Your task to perform on an android device: refresh tabs in the chrome app Image 0: 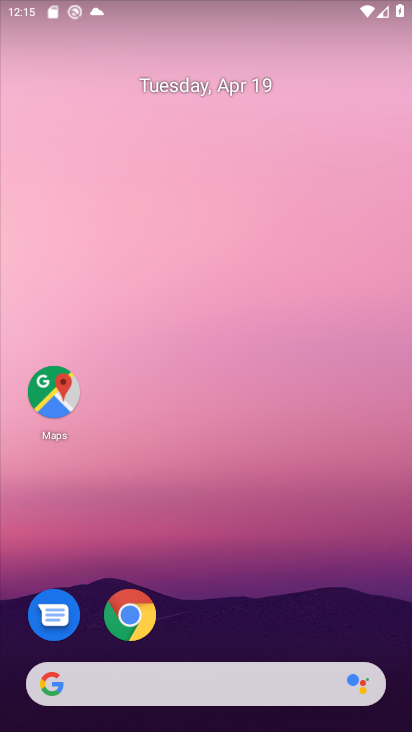
Step 0: click (129, 624)
Your task to perform on an android device: refresh tabs in the chrome app Image 1: 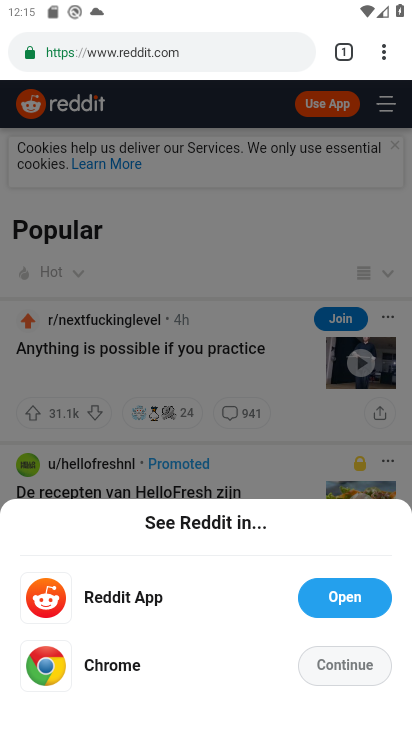
Step 1: click (381, 52)
Your task to perform on an android device: refresh tabs in the chrome app Image 2: 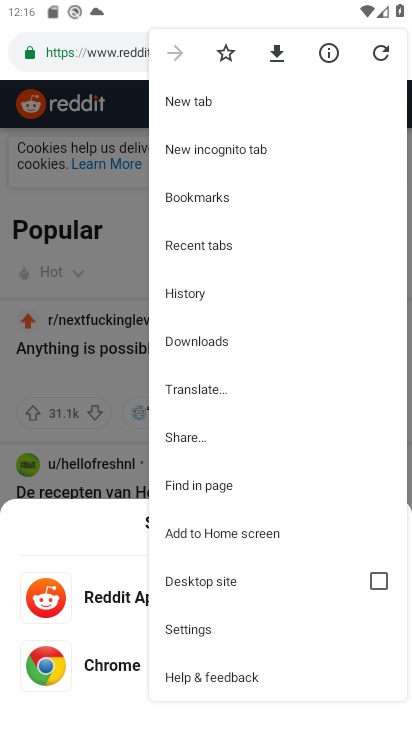
Step 2: click (381, 52)
Your task to perform on an android device: refresh tabs in the chrome app Image 3: 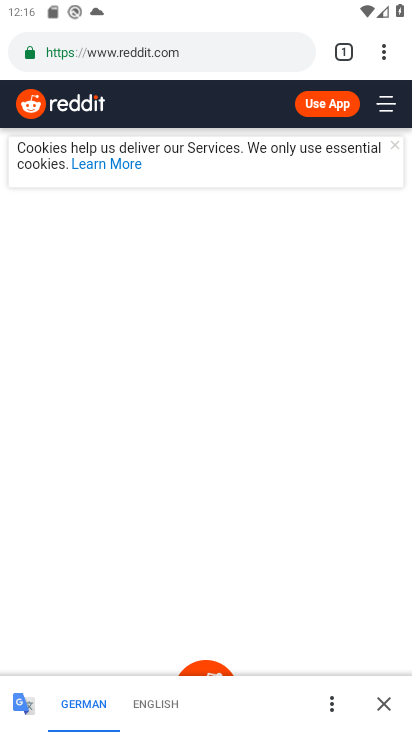
Step 3: task complete